Your task to perform on an android device: Go to Wikipedia Image 0: 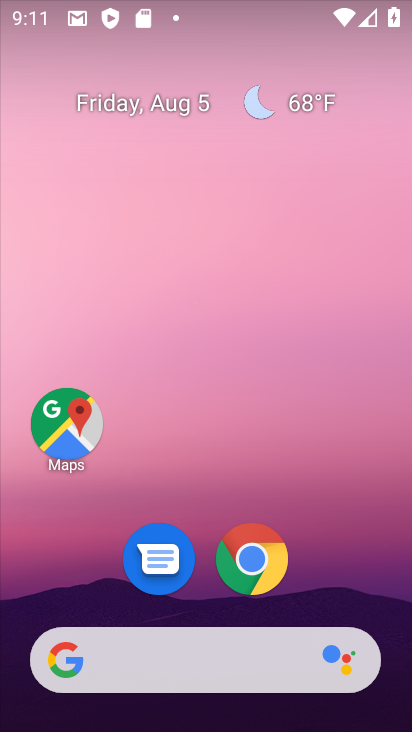
Step 0: drag from (231, 716) to (239, 68)
Your task to perform on an android device: Go to Wikipedia Image 1: 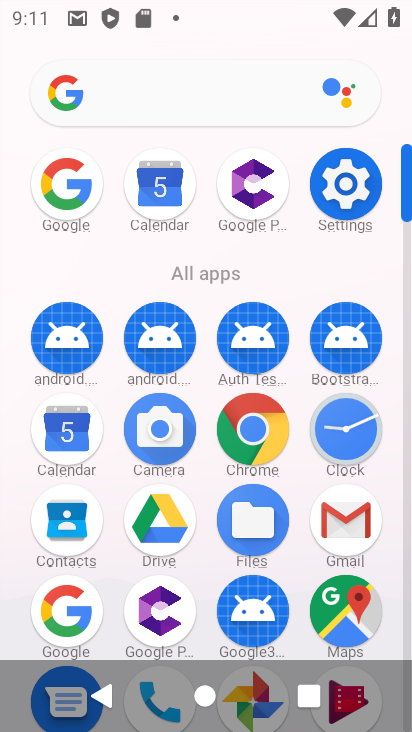
Step 1: click (254, 446)
Your task to perform on an android device: Go to Wikipedia Image 2: 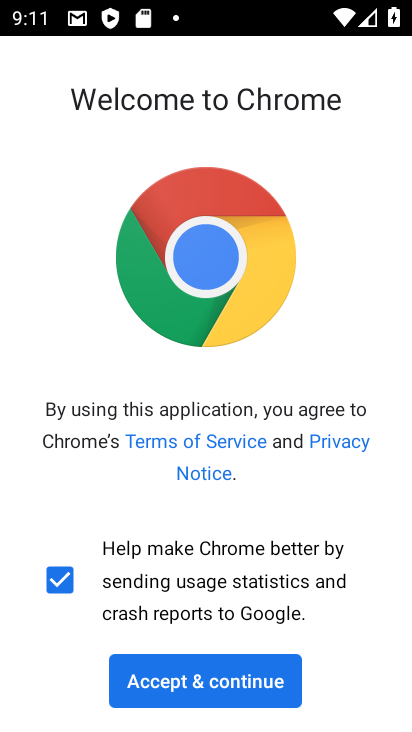
Step 2: click (186, 691)
Your task to perform on an android device: Go to Wikipedia Image 3: 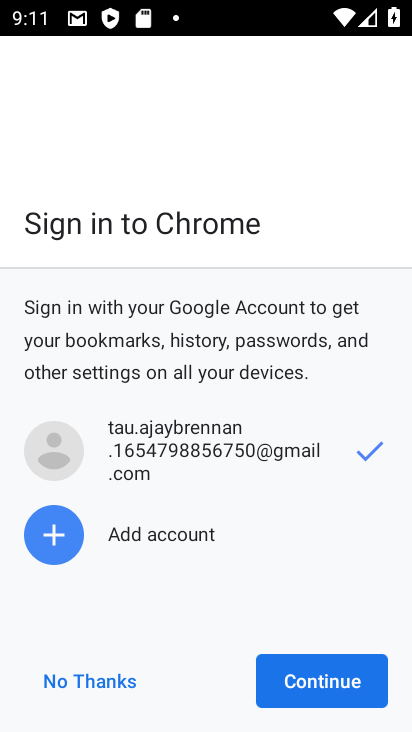
Step 3: click (363, 673)
Your task to perform on an android device: Go to Wikipedia Image 4: 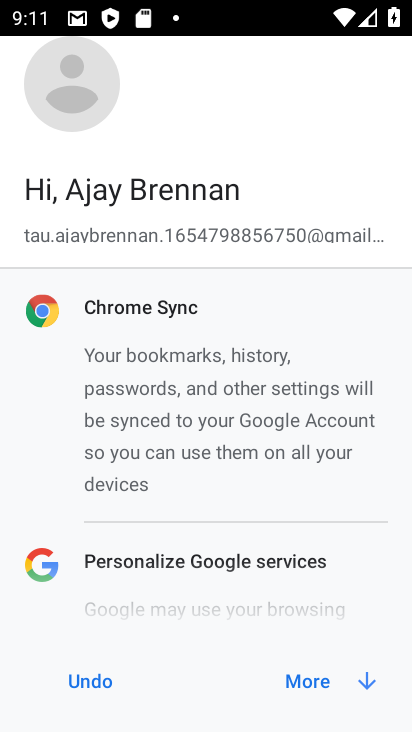
Step 4: click (334, 682)
Your task to perform on an android device: Go to Wikipedia Image 5: 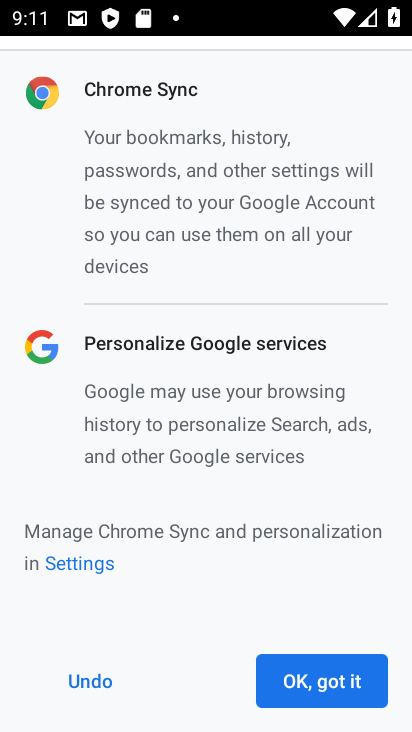
Step 5: click (333, 683)
Your task to perform on an android device: Go to Wikipedia Image 6: 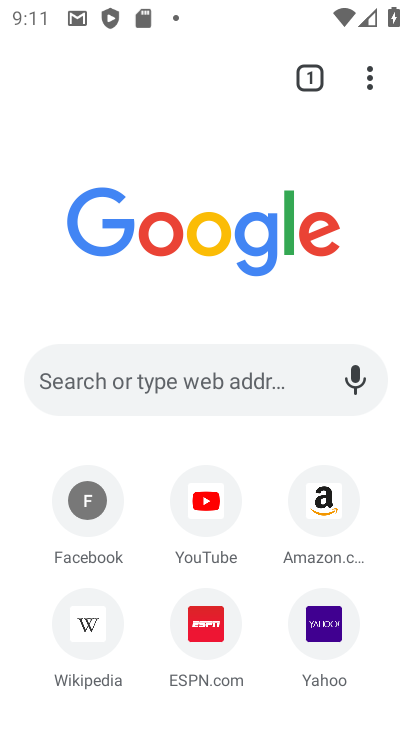
Step 6: click (115, 618)
Your task to perform on an android device: Go to Wikipedia Image 7: 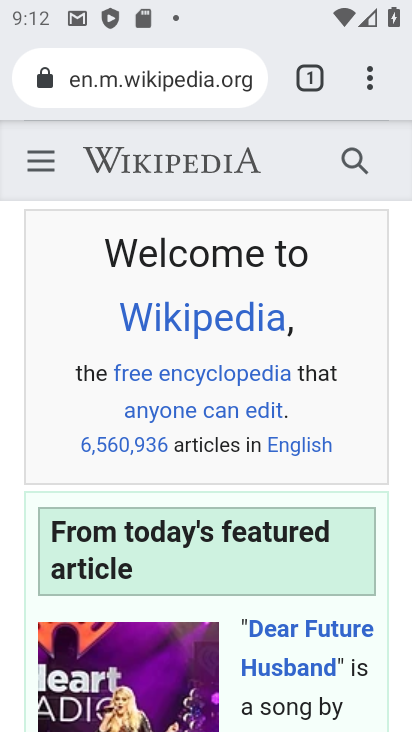
Step 7: task complete